Your task to perform on an android device: Go to ESPN.com Image 0: 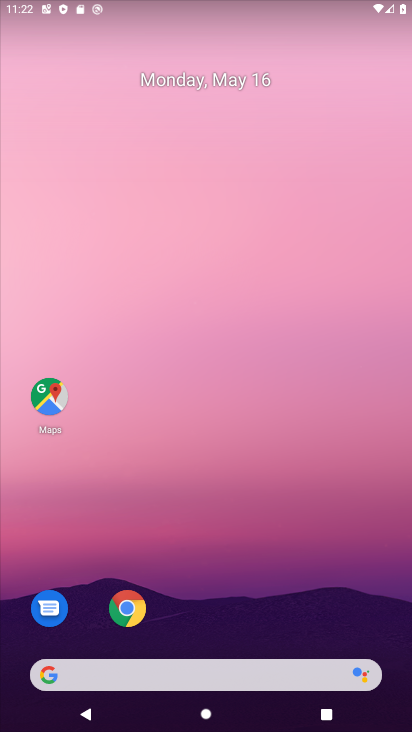
Step 0: press home button
Your task to perform on an android device: Go to ESPN.com Image 1: 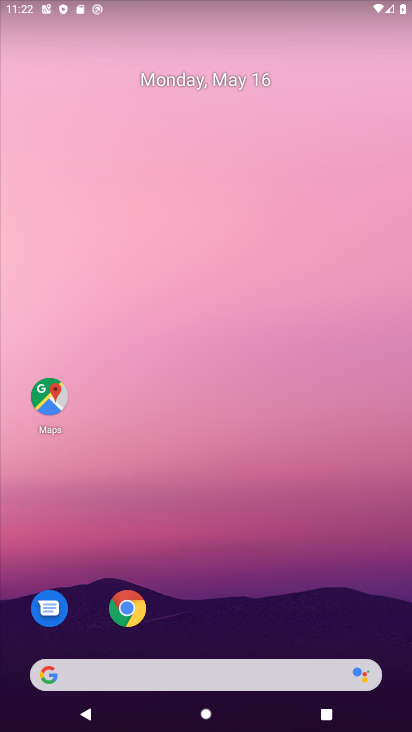
Step 1: click (126, 612)
Your task to perform on an android device: Go to ESPN.com Image 2: 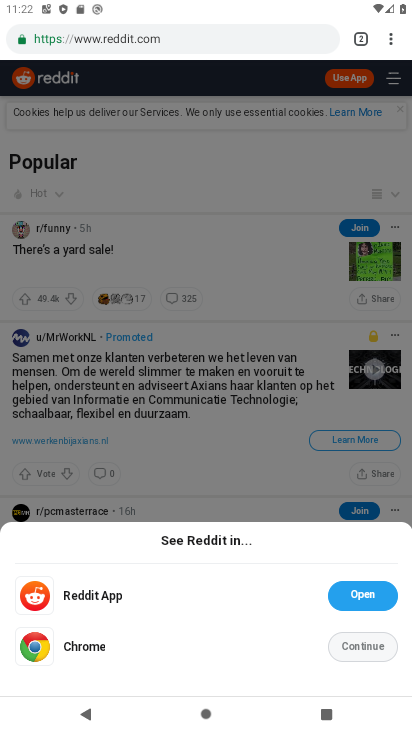
Step 2: drag from (389, 47) to (321, 72)
Your task to perform on an android device: Go to ESPN.com Image 3: 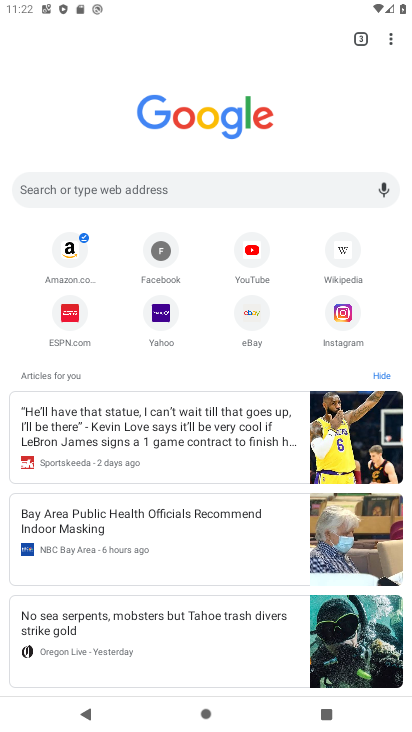
Step 3: click (73, 316)
Your task to perform on an android device: Go to ESPN.com Image 4: 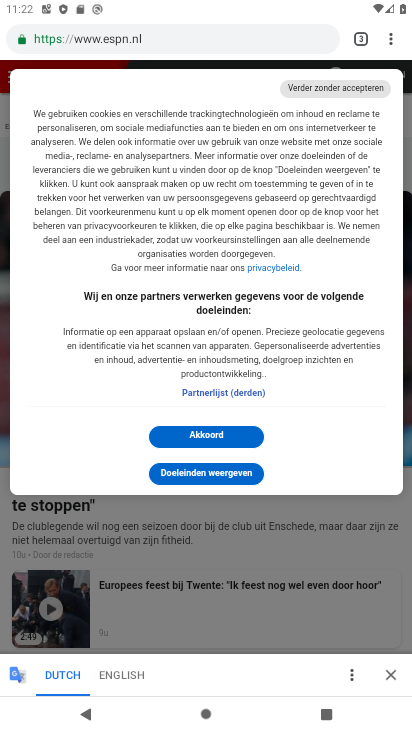
Step 4: click (213, 439)
Your task to perform on an android device: Go to ESPN.com Image 5: 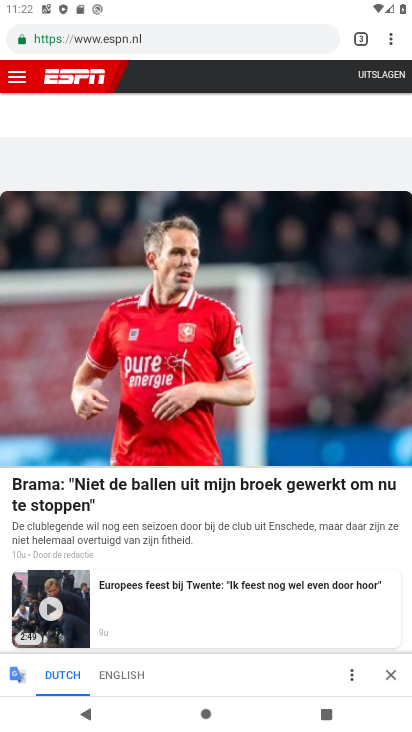
Step 5: click (116, 678)
Your task to perform on an android device: Go to ESPN.com Image 6: 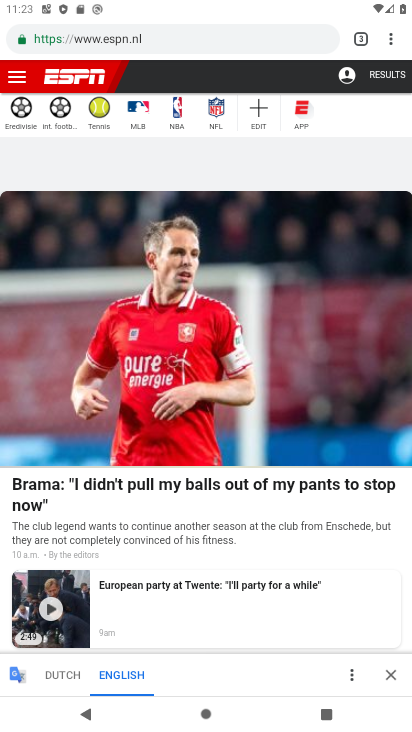
Step 6: task complete